Your task to perform on an android device: manage bookmarks in the chrome app Image 0: 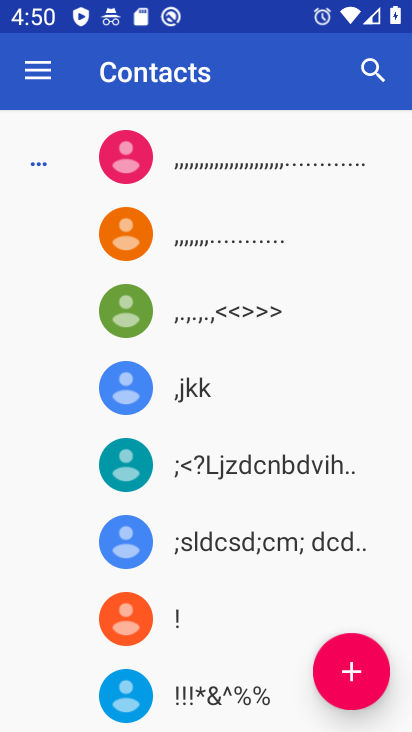
Step 0: press home button
Your task to perform on an android device: manage bookmarks in the chrome app Image 1: 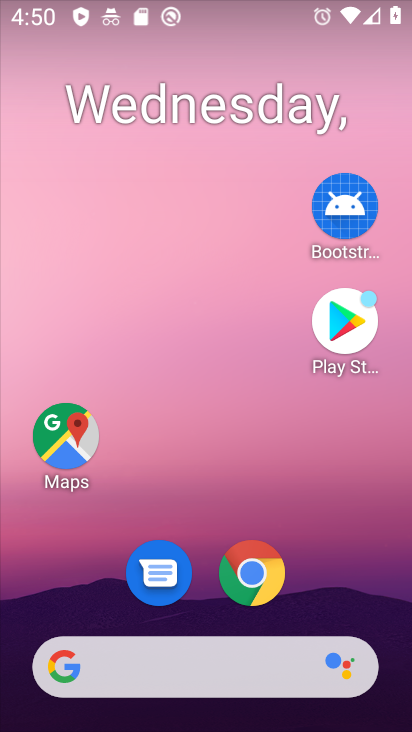
Step 1: drag from (313, 599) to (360, 88)
Your task to perform on an android device: manage bookmarks in the chrome app Image 2: 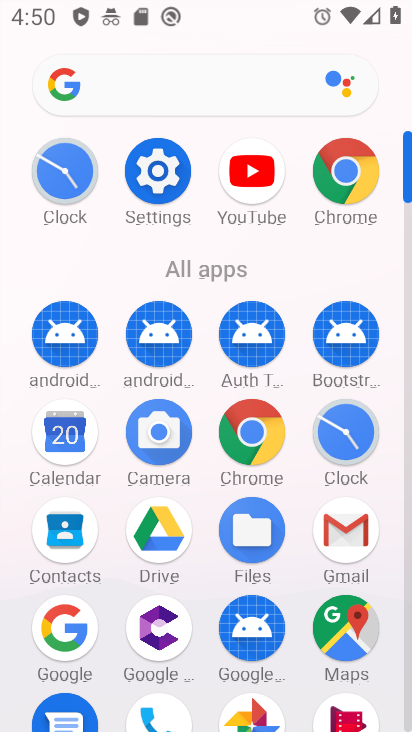
Step 2: click (242, 432)
Your task to perform on an android device: manage bookmarks in the chrome app Image 3: 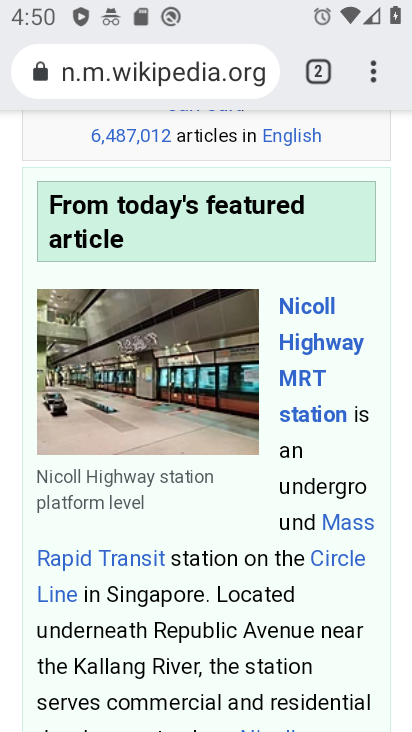
Step 3: task complete